Your task to perform on an android device: make emails show in primary in the gmail app Image 0: 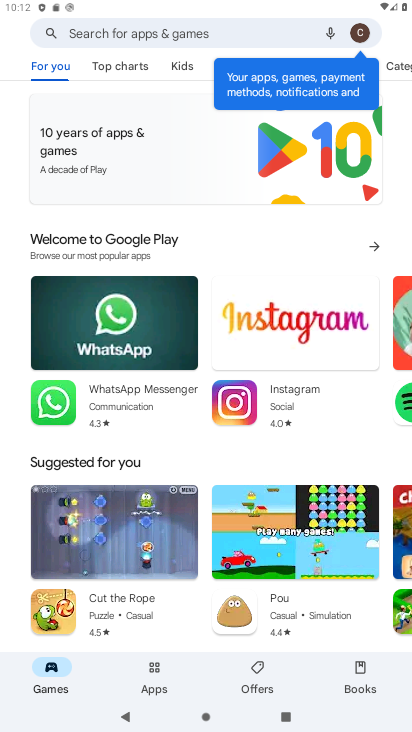
Step 0: press home button
Your task to perform on an android device: make emails show in primary in the gmail app Image 1: 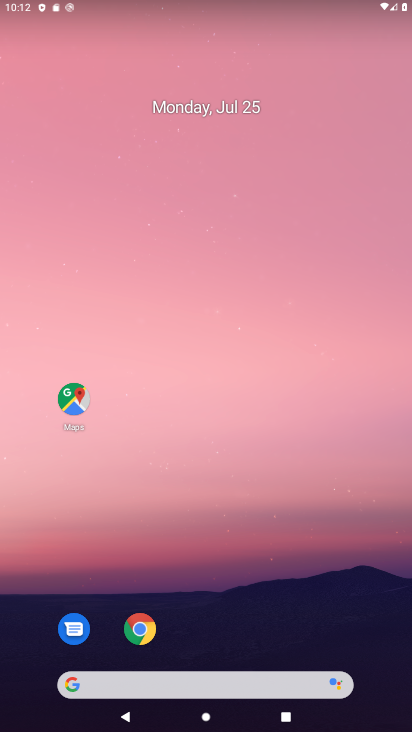
Step 1: drag from (240, 655) to (294, 1)
Your task to perform on an android device: make emails show in primary in the gmail app Image 2: 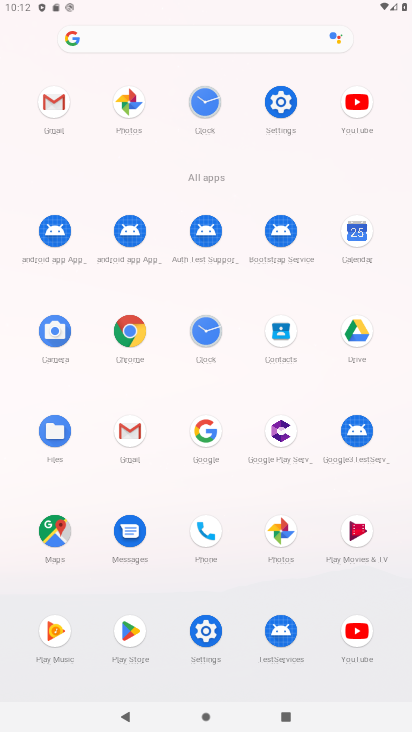
Step 2: click (49, 108)
Your task to perform on an android device: make emails show in primary in the gmail app Image 3: 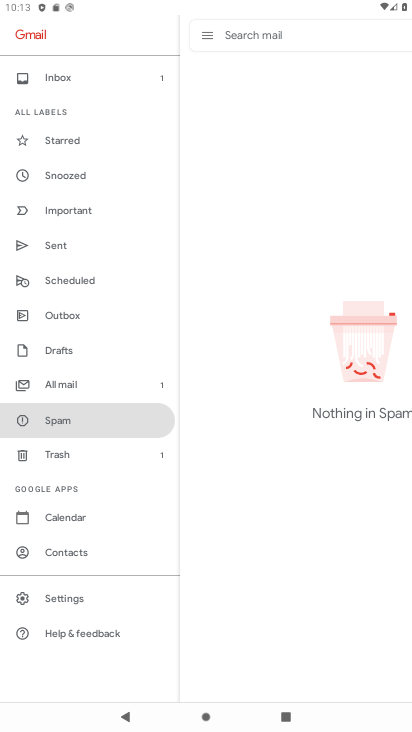
Step 3: click (56, 601)
Your task to perform on an android device: make emails show in primary in the gmail app Image 4: 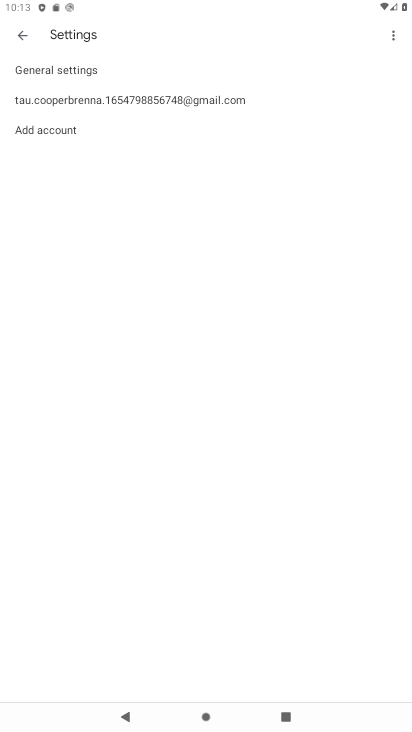
Step 4: click (101, 106)
Your task to perform on an android device: make emails show in primary in the gmail app Image 5: 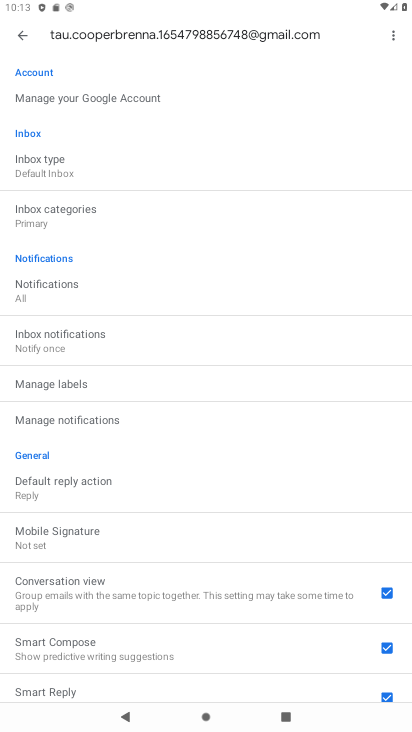
Step 5: task complete